Your task to perform on an android device: Go to Wikipedia Image 0: 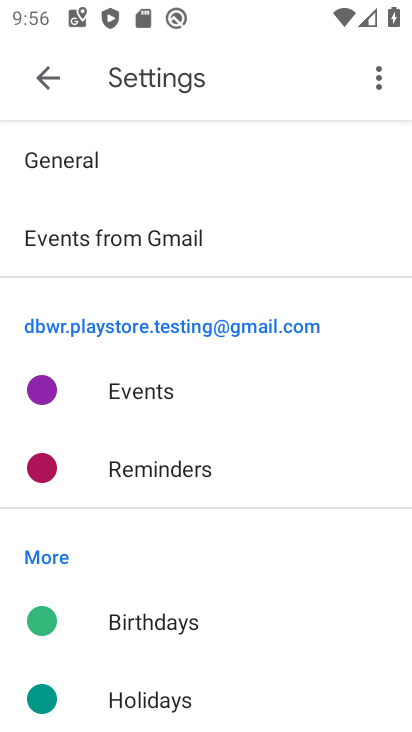
Step 0: press home button
Your task to perform on an android device: Go to Wikipedia Image 1: 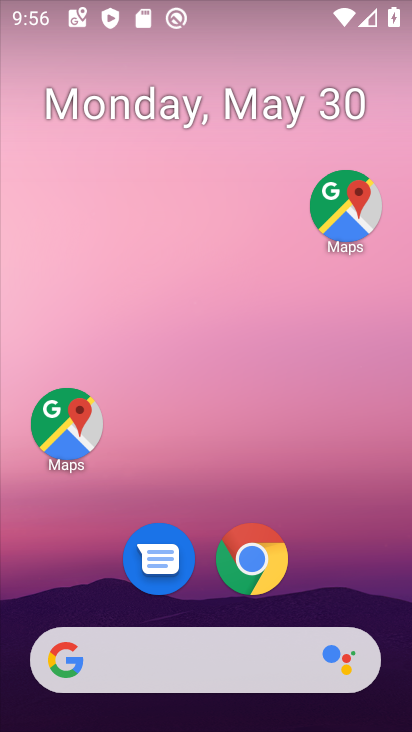
Step 1: click (260, 559)
Your task to perform on an android device: Go to Wikipedia Image 2: 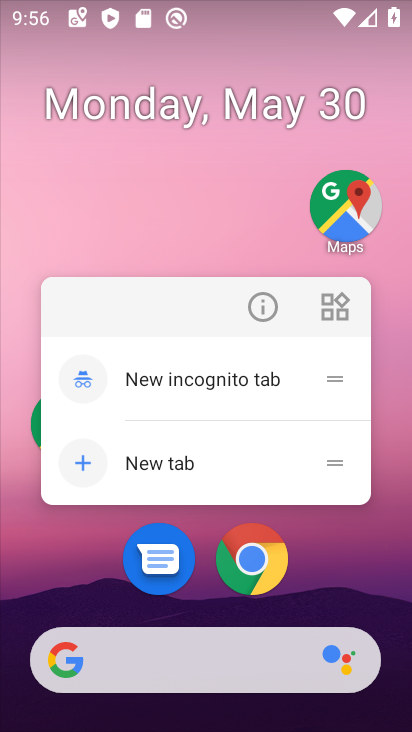
Step 2: click (253, 550)
Your task to perform on an android device: Go to Wikipedia Image 3: 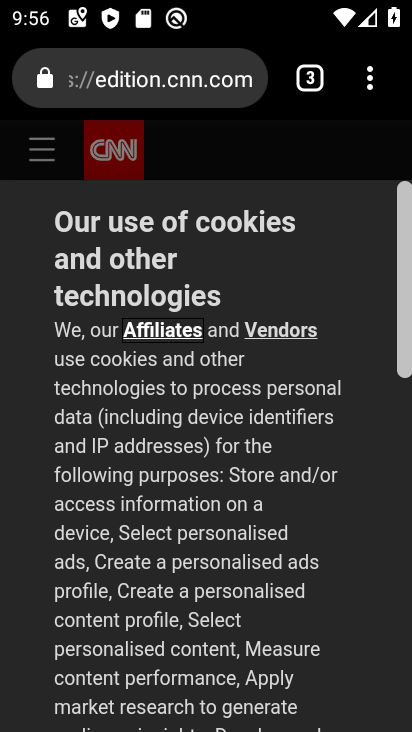
Step 3: click (117, 77)
Your task to perform on an android device: Go to Wikipedia Image 4: 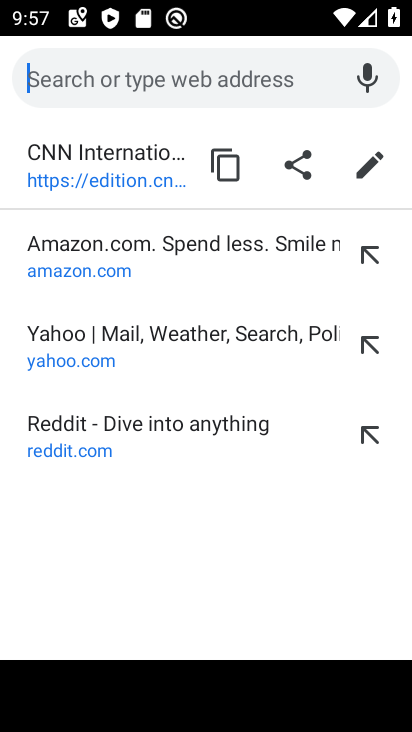
Step 4: type "wikiprdia"
Your task to perform on an android device: Go to Wikipedia Image 5: 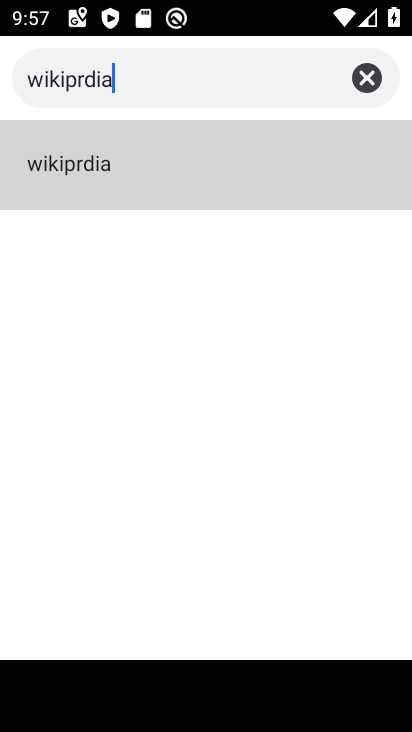
Step 5: click (68, 168)
Your task to perform on an android device: Go to Wikipedia Image 6: 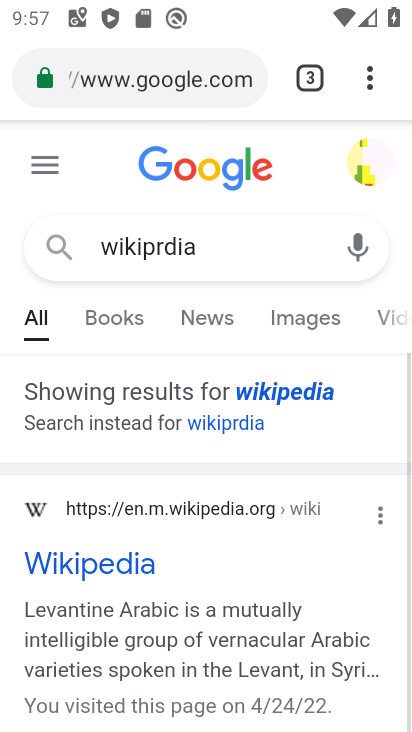
Step 6: click (101, 555)
Your task to perform on an android device: Go to Wikipedia Image 7: 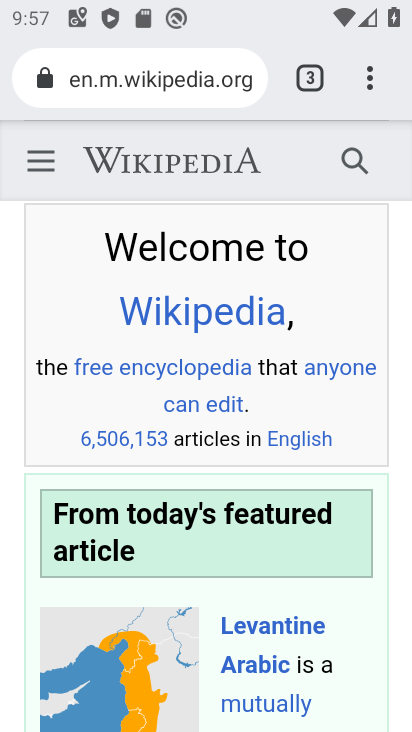
Step 7: task complete